Your task to perform on an android device: uninstall "AliExpress" Image 0: 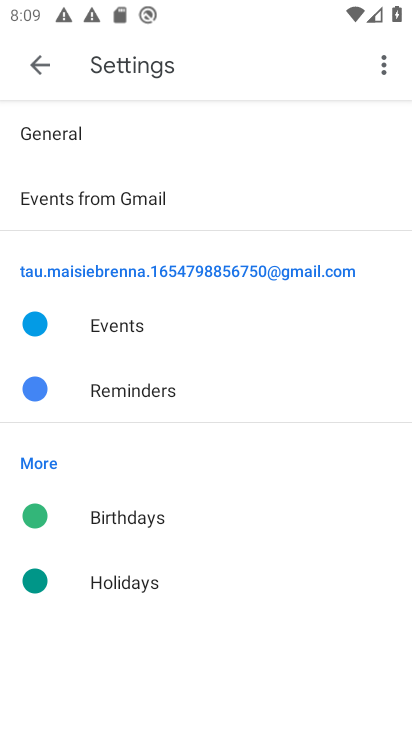
Step 0: click (39, 54)
Your task to perform on an android device: uninstall "AliExpress" Image 1: 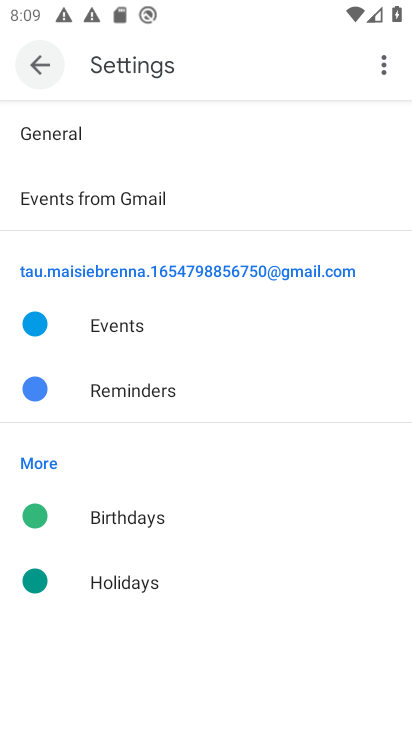
Step 1: click (36, 57)
Your task to perform on an android device: uninstall "AliExpress" Image 2: 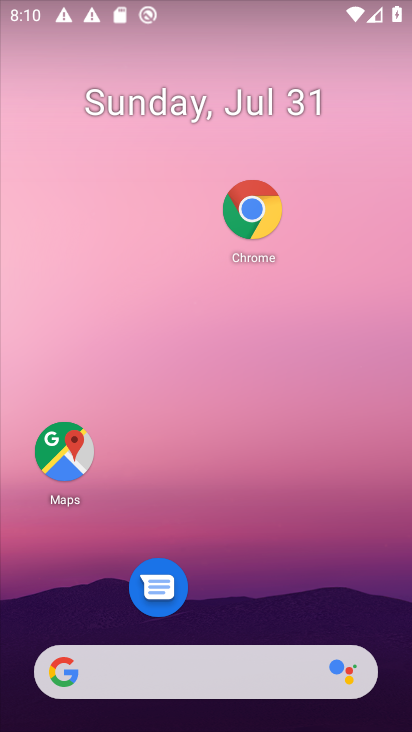
Step 2: click (211, 43)
Your task to perform on an android device: uninstall "AliExpress" Image 3: 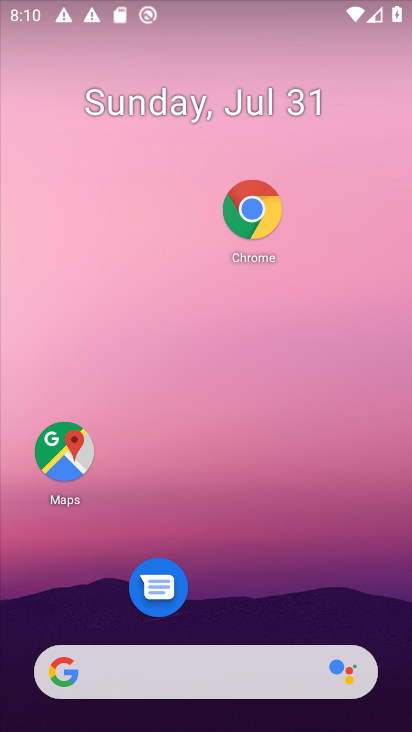
Step 3: drag from (259, 543) to (142, 252)
Your task to perform on an android device: uninstall "AliExpress" Image 4: 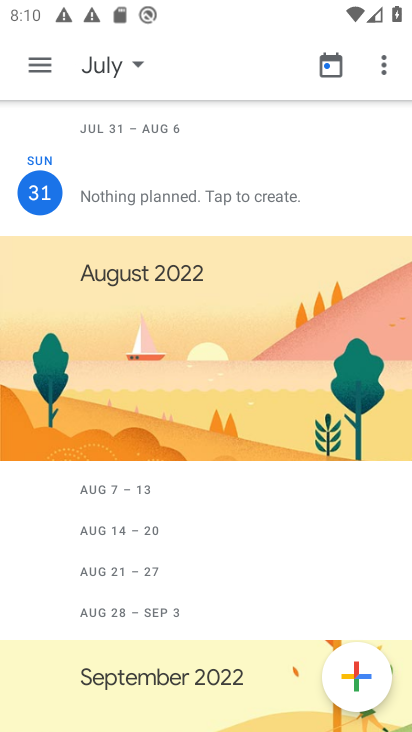
Step 4: press back button
Your task to perform on an android device: uninstall "AliExpress" Image 5: 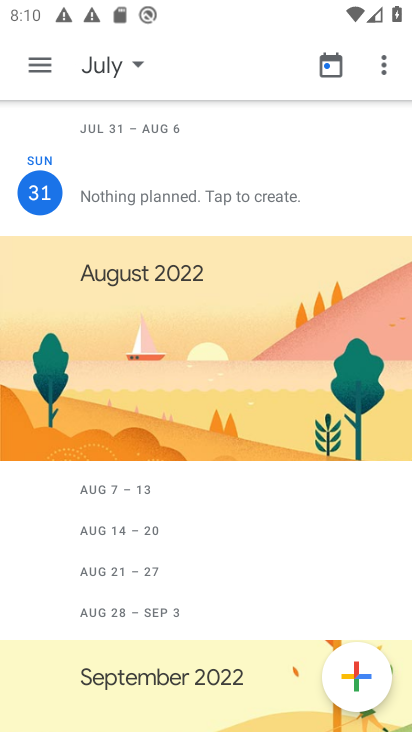
Step 5: press back button
Your task to perform on an android device: uninstall "AliExpress" Image 6: 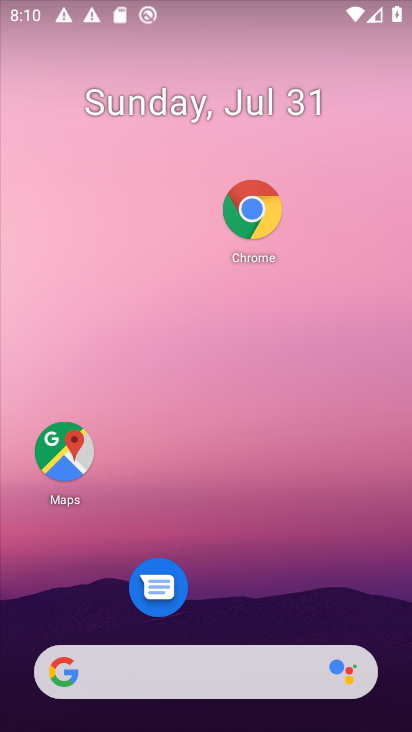
Step 6: drag from (186, 475) to (151, 188)
Your task to perform on an android device: uninstall "AliExpress" Image 7: 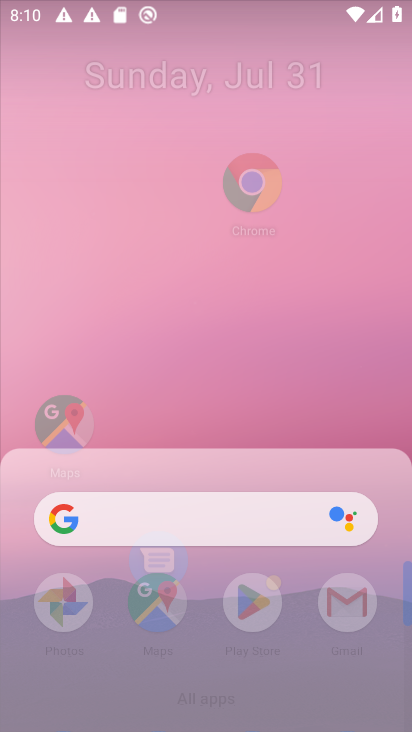
Step 7: drag from (239, 572) to (239, 152)
Your task to perform on an android device: uninstall "AliExpress" Image 8: 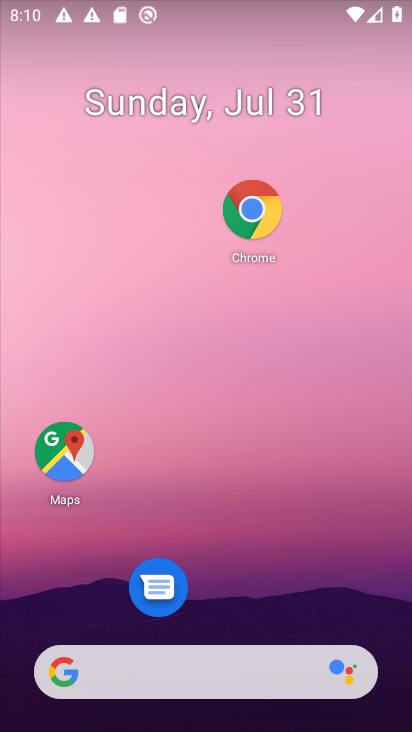
Step 8: drag from (199, 582) to (196, 78)
Your task to perform on an android device: uninstall "AliExpress" Image 9: 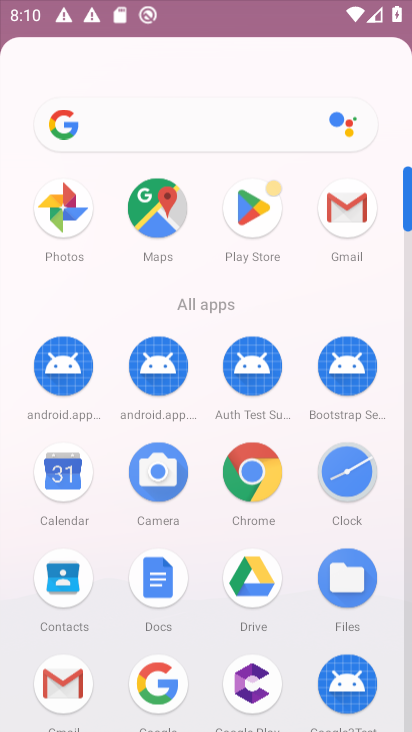
Step 9: drag from (263, 469) to (188, 83)
Your task to perform on an android device: uninstall "AliExpress" Image 10: 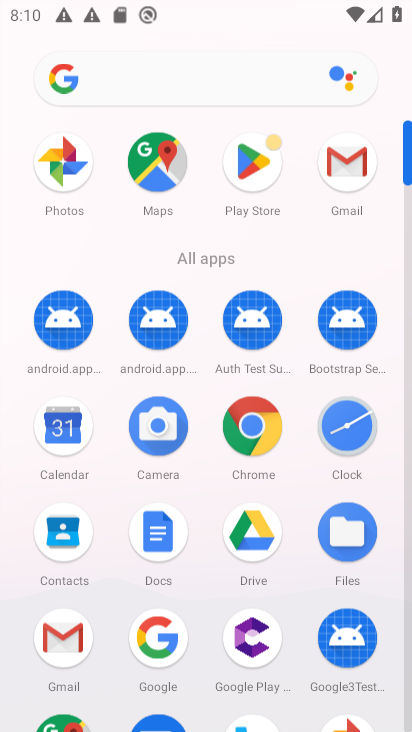
Step 10: drag from (233, 583) to (234, 7)
Your task to perform on an android device: uninstall "AliExpress" Image 11: 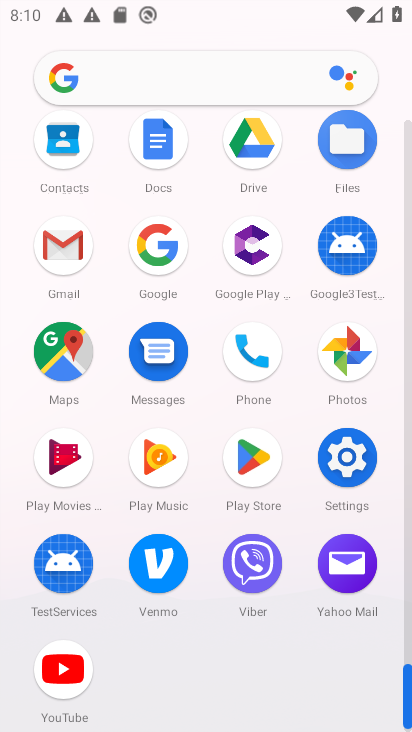
Step 11: click (261, 454)
Your task to perform on an android device: uninstall "AliExpress" Image 12: 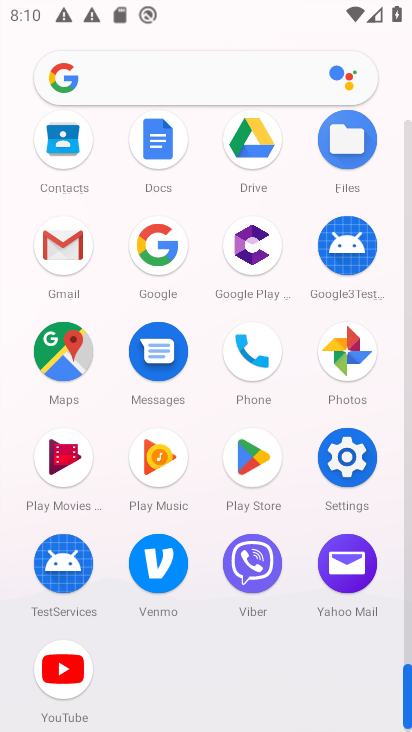
Step 12: click (261, 454)
Your task to perform on an android device: uninstall "AliExpress" Image 13: 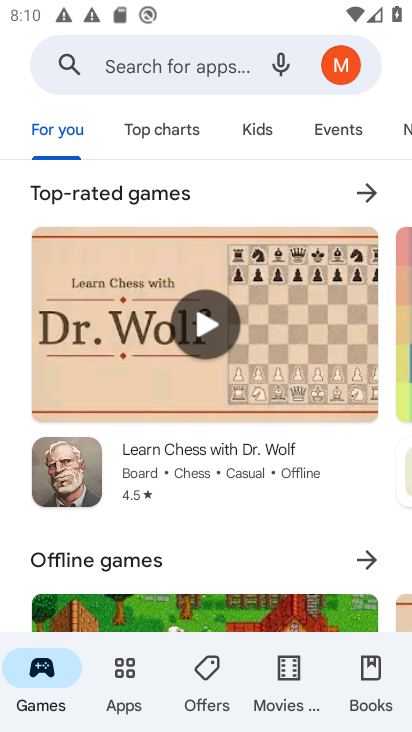
Step 13: click (134, 68)
Your task to perform on an android device: uninstall "AliExpress" Image 14: 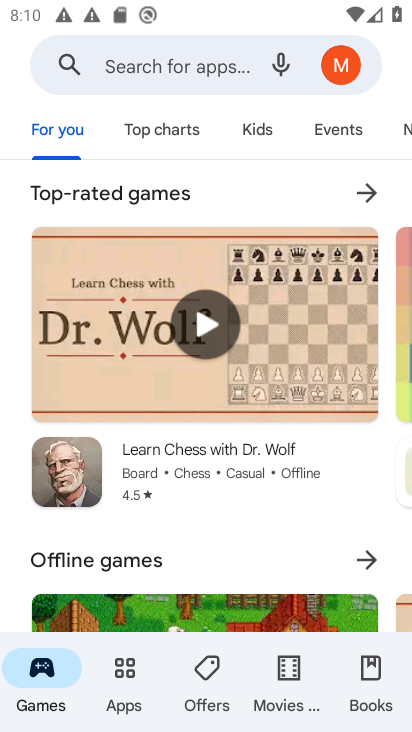
Step 14: click (127, 56)
Your task to perform on an android device: uninstall "AliExpress" Image 15: 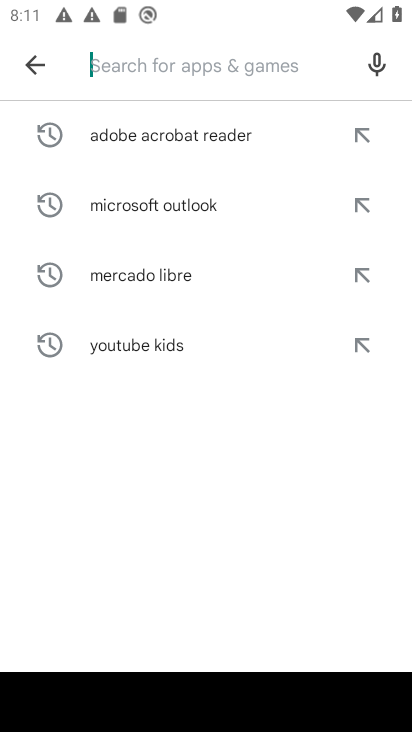
Step 15: type "aliexpress"
Your task to perform on an android device: uninstall "AliExpress" Image 16: 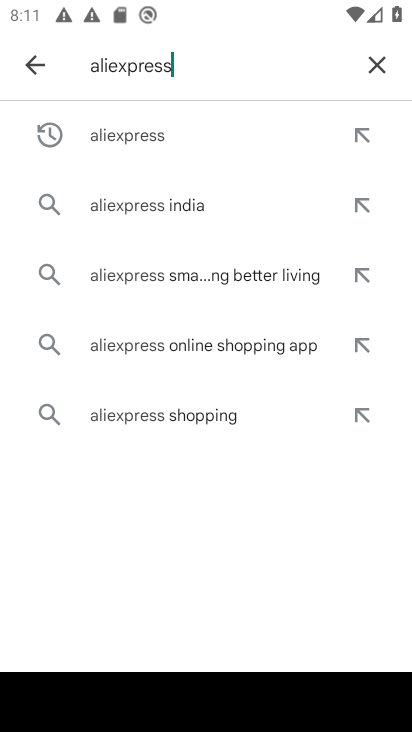
Step 16: click (147, 134)
Your task to perform on an android device: uninstall "AliExpress" Image 17: 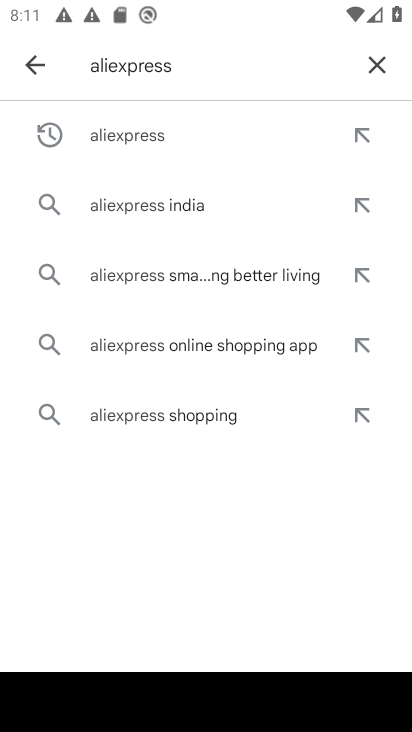
Step 17: click (147, 134)
Your task to perform on an android device: uninstall "AliExpress" Image 18: 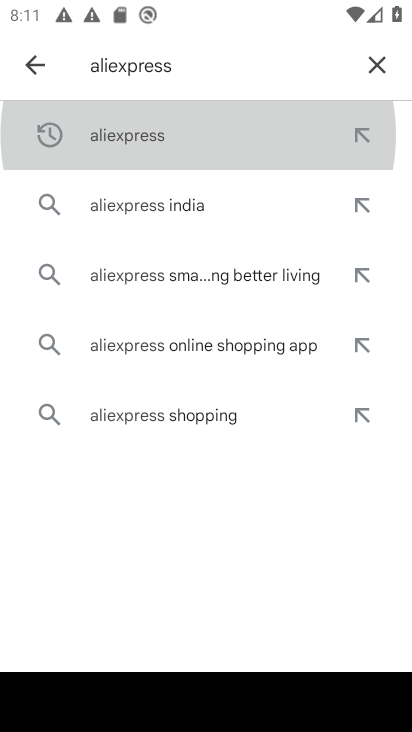
Step 18: click (147, 134)
Your task to perform on an android device: uninstall "AliExpress" Image 19: 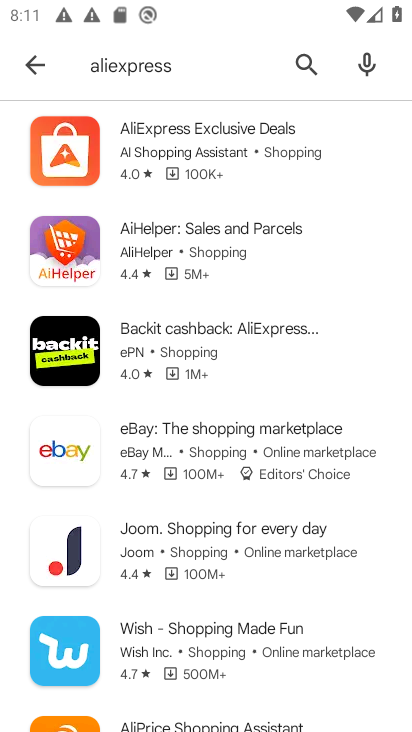
Step 19: task complete